Your task to perform on an android device: Go to notification settings Image 0: 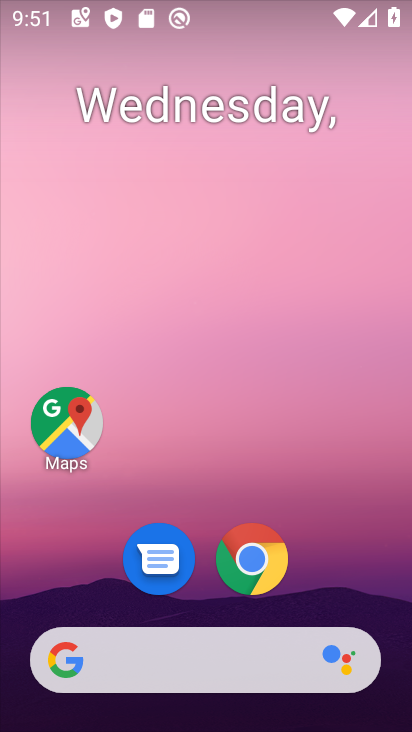
Step 0: drag from (252, 458) to (235, 62)
Your task to perform on an android device: Go to notification settings Image 1: 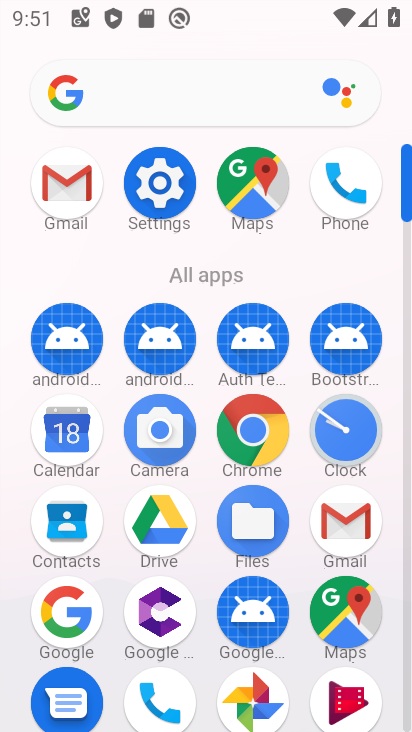
Step 1: click (175, 169)
Your task to perform on an android device: Go to notification settings Image 2: 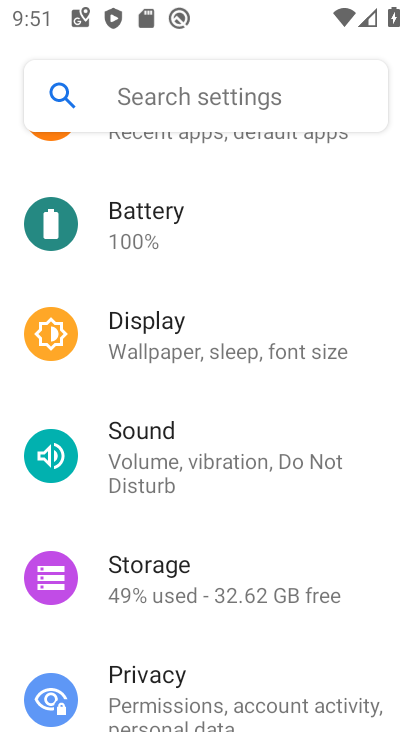
Step 2: drag from (237, 261) to (237, 501)
Your task to perform on an android device: Go to notification settings Image 3: 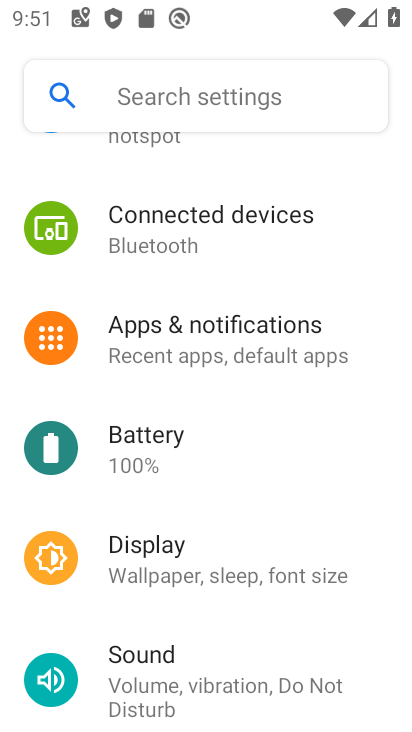
Step 3: click (256, 341)
Your task to perform on an android device: Go to notification settings Image 4: 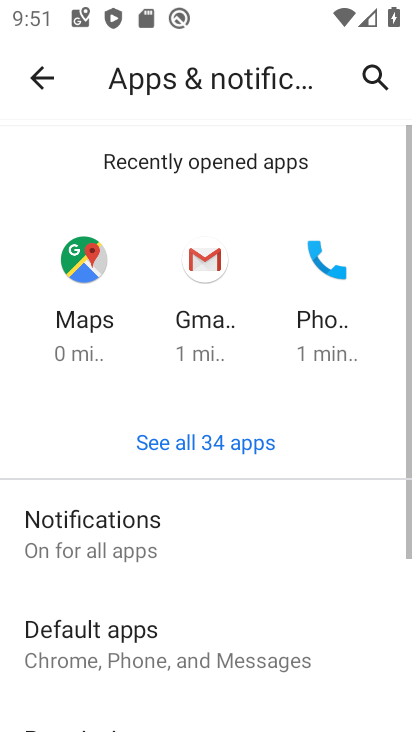
Step 4: click (164, 534)
Your task to perform on an android device: Go to notification settings Image 5: 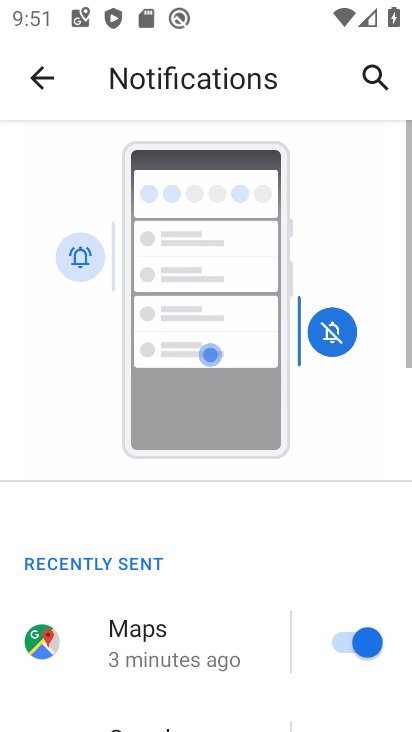
Step 5: task complete